Your task to perform on an android device: Search for seafood restaurants on Google Maps Image 0: 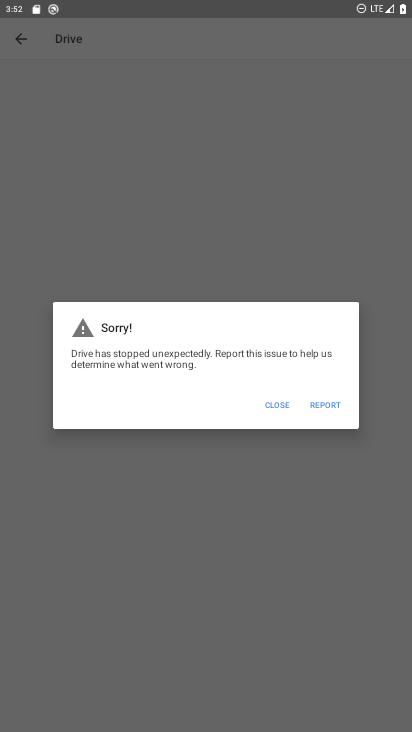
Step 0: press home button
Your task to perform on an android device: Search for seafood restaurants on Google Maps Image 1: 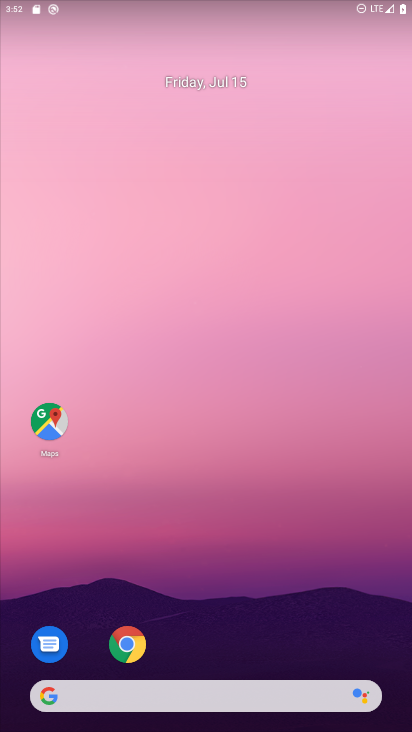
Step 1: click (41, 422)
Your task to perform on an android device: Search for seafood restaurants on Google Maps Image 2: 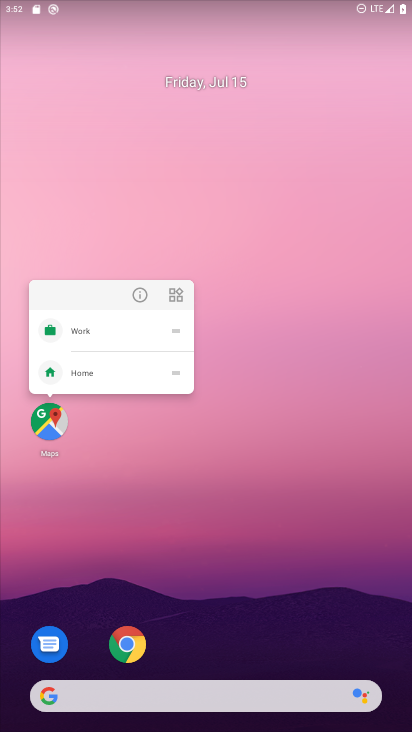
Step 2: click (41, 422)
Your task to perform on an android device: Search for seafood restaurants on Google Maps Image 3: 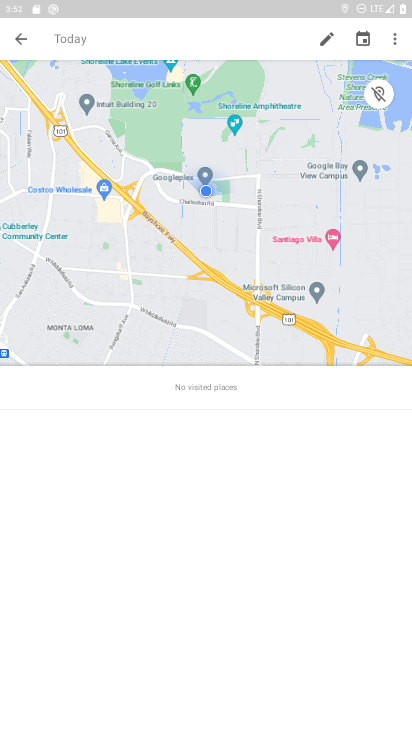
Step 3: click (173, 44)
Your task to perform on an android device: Search for seafood restaurants on Google Maps Image 4: 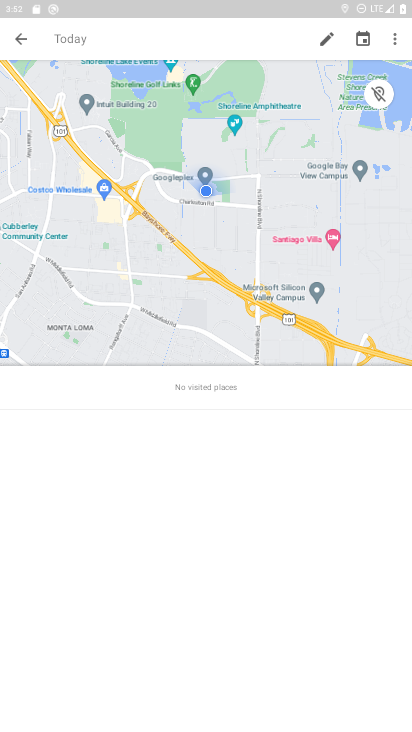
Step 4: click (173, 44)
Your task to perform on an android device: Search for seafood restaurants on Google Maps Image 5: 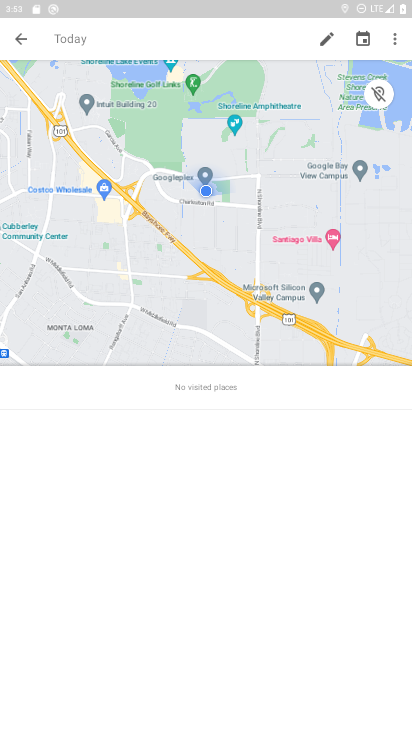
Step 5: click (170, 35)
Your task to perform on an android device: Search for seafood restaurants on Google Maps Image 6: 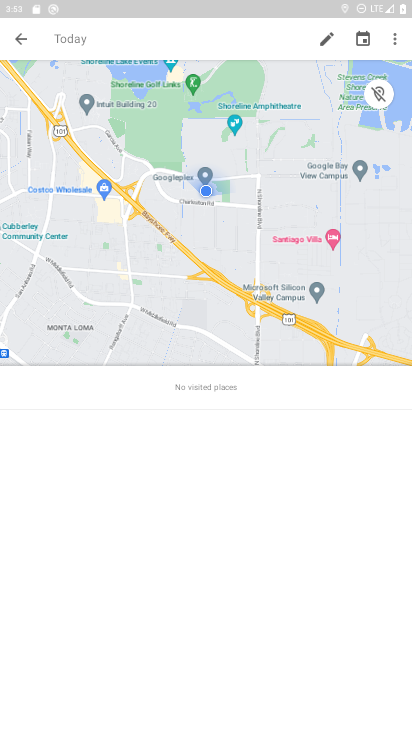
Step 6: type "seafood restaurants"
Your task to perform on an android device: Search for seafood restaurants on Google Maps Image 7: 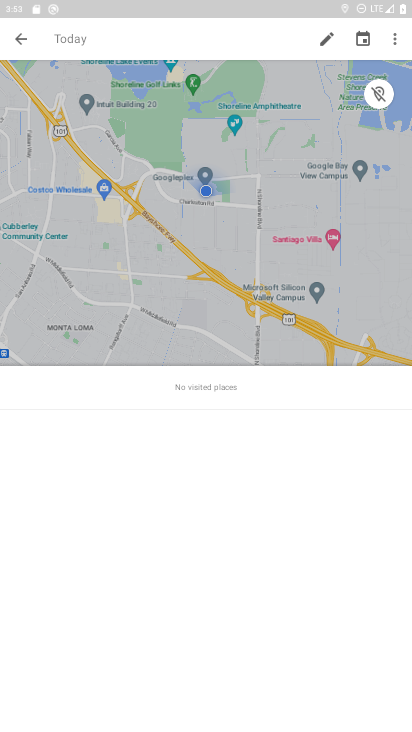
Step 7: type ""
Your task to perform on an android device: Search for seafood restaurants on Google Maps Image 8: 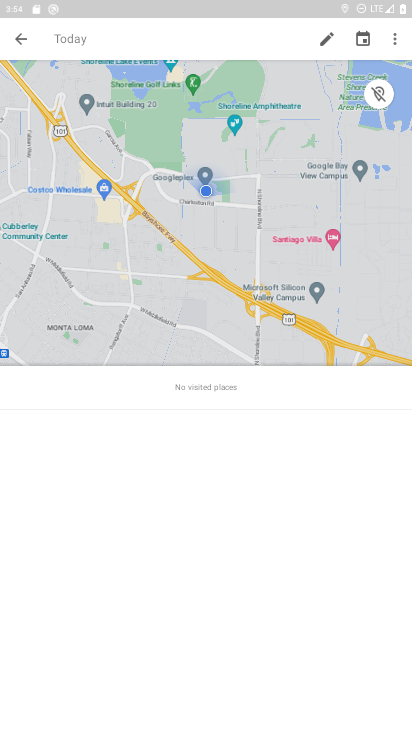
Step 8: type "seafood restaurants"
Your task to perform on an android device: Search for seafood restaurants on Google Maps Image 9: 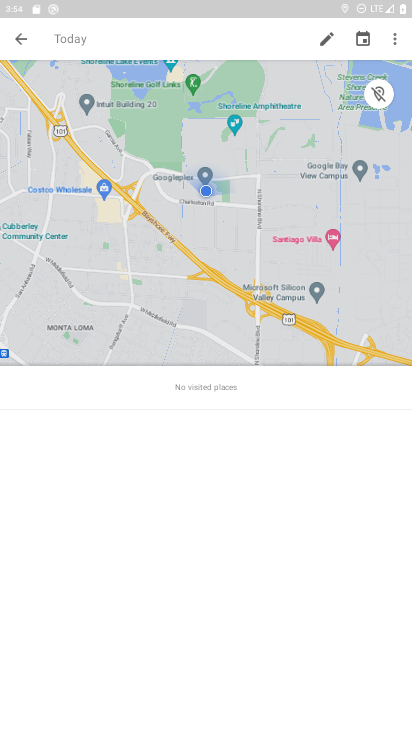
Step 9: type ""
Your task to perform on an android device: Search for seafood restaurants on Google Maps Image 10: 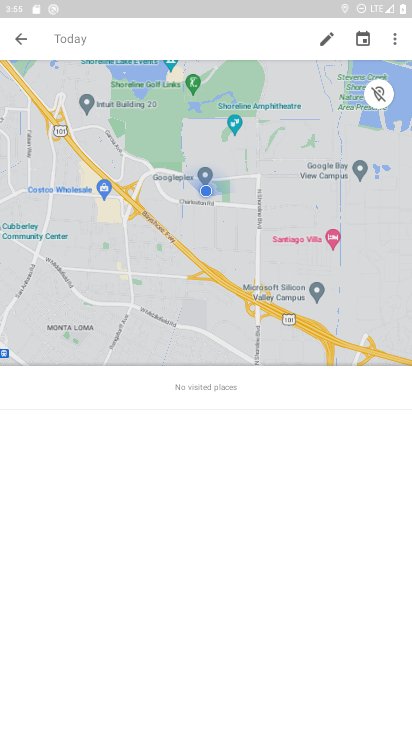
Step 10: task complete